Your task to perform on an android device: open a new tab in the chrome app Image 0: 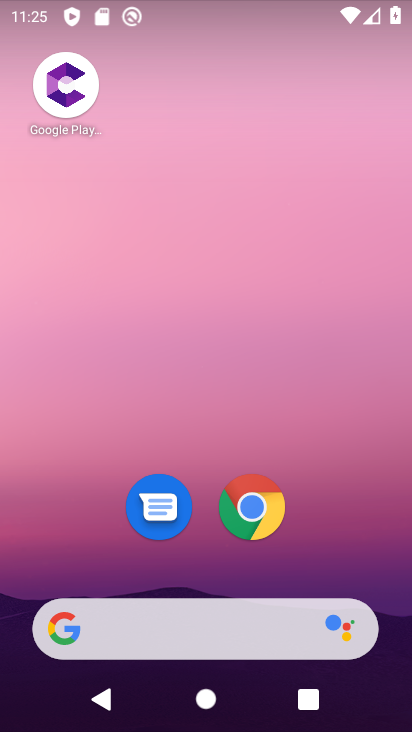
Step 0: click (242, 508)
Your task to perform on an android device: open a new tab in the chrome app Image 1: 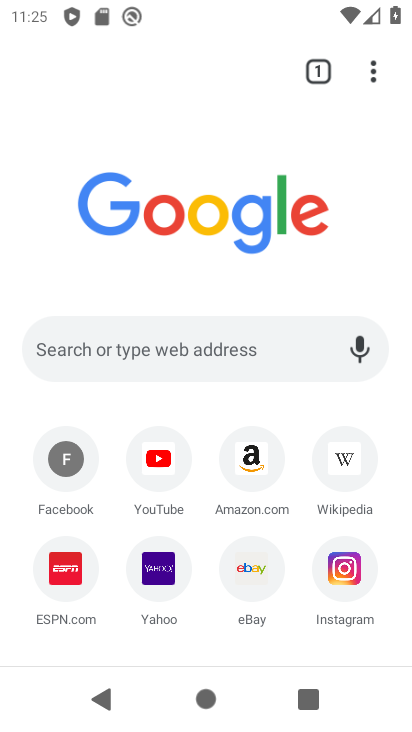
Step 1: task complete